Your task to perform on an android device: set the stopwatch Image 0: 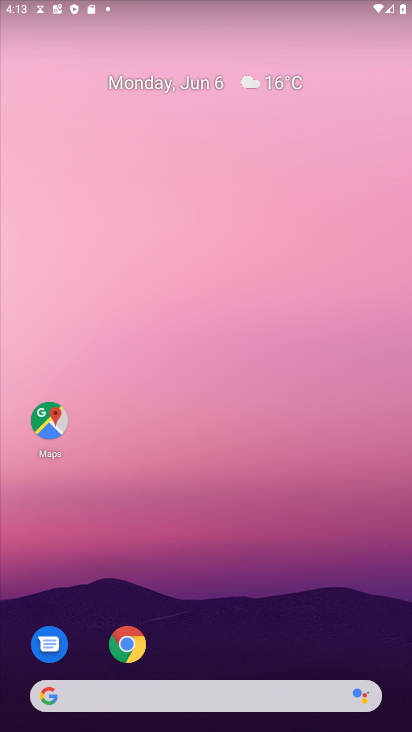
Step 0: drag from (172, 728) to (91, 40)
Your task to perform on an android device: set the stopwatch Image 1: 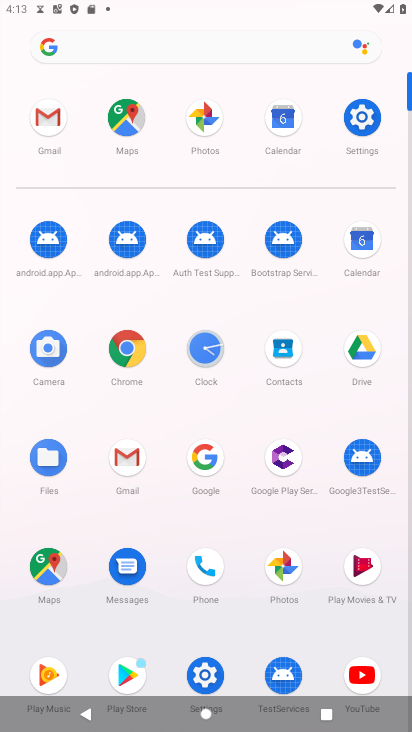
Step 1: click (201, 354)
Your task to perform on an android device: set the stopwatch Image 2: 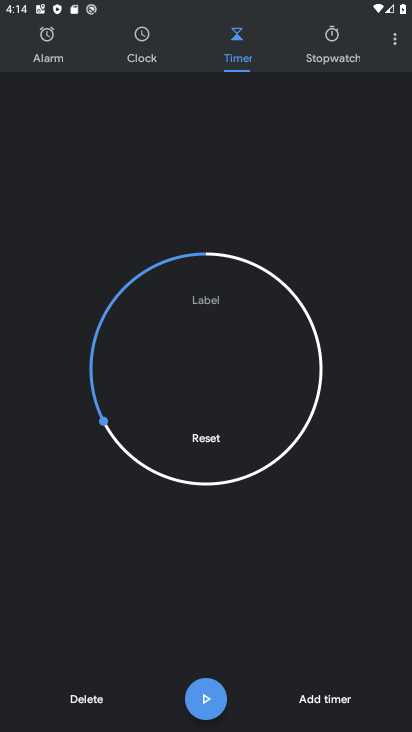
Step 2: click (342, 55)
Your task to perform on an android device: set the stopwatch Image 3: 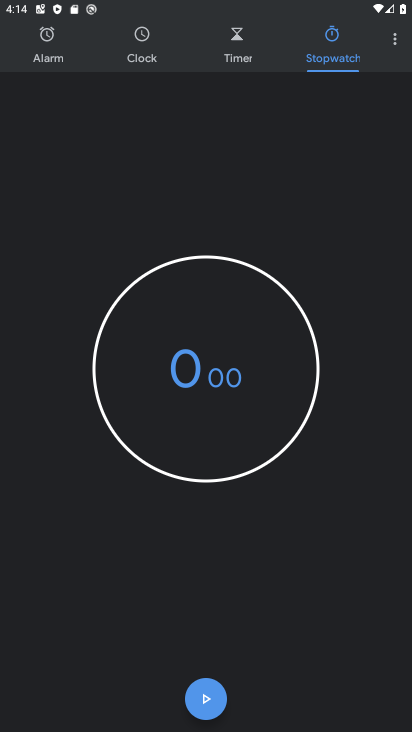
Step 3: click (197, 701)
Your task to perform on an android device: set the stopwatch Image 4: 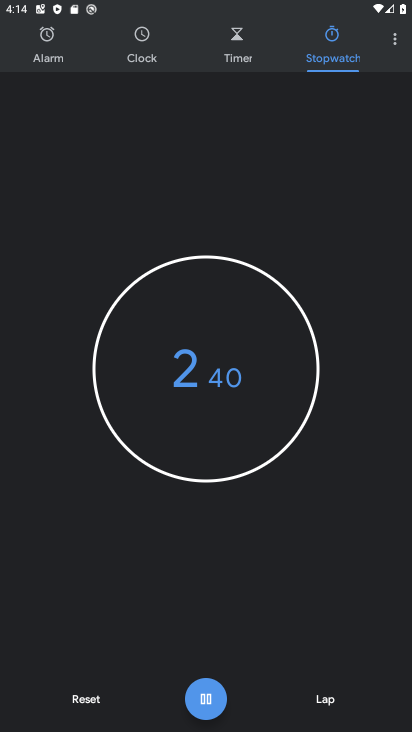
Step 4: click (199, 698)
Your task to perform on an android device: set the stopwatch Image 5: 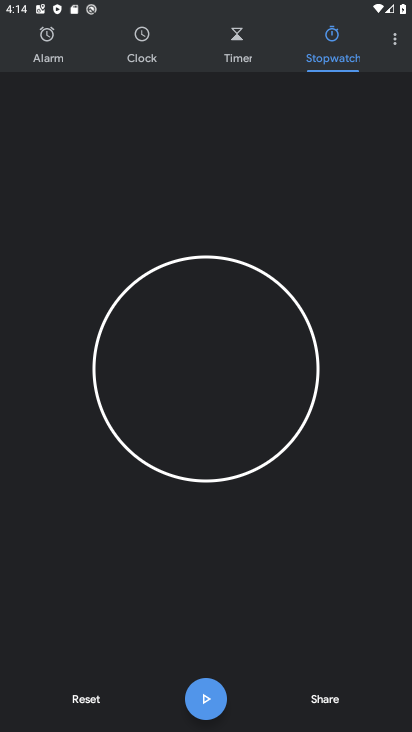
Step 5: click (98, 703)
Your task to perform on an android device: set the stopwatch Image 6: 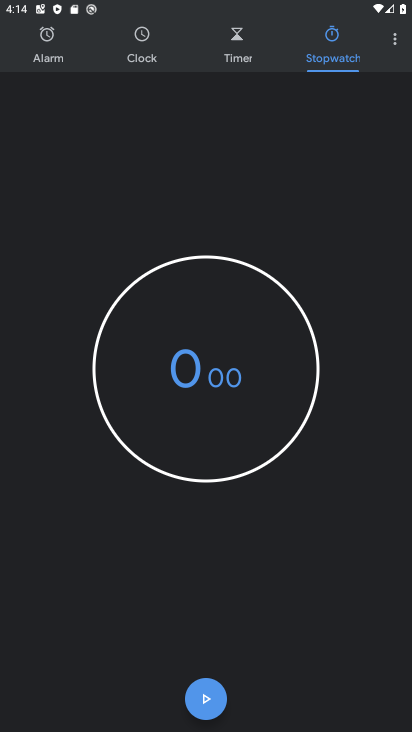
Step 6: task complete